Your task to perform on an android device: Open Chrome and go to the settings page Image 0: 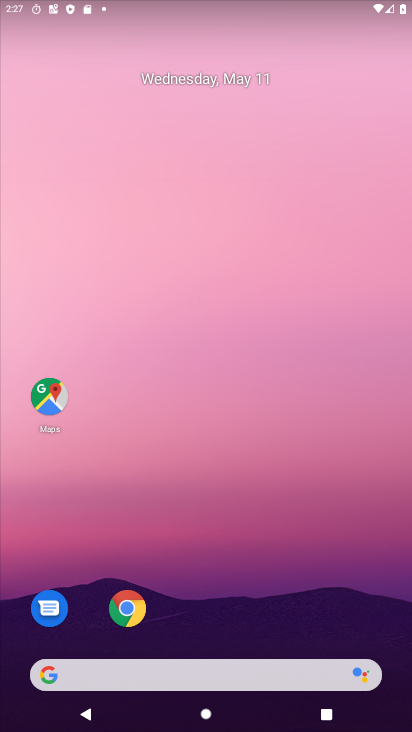
Step 0: click (124, 601)
Your task to perform on an android device: Open Chrome and go to the settings page Image 1: 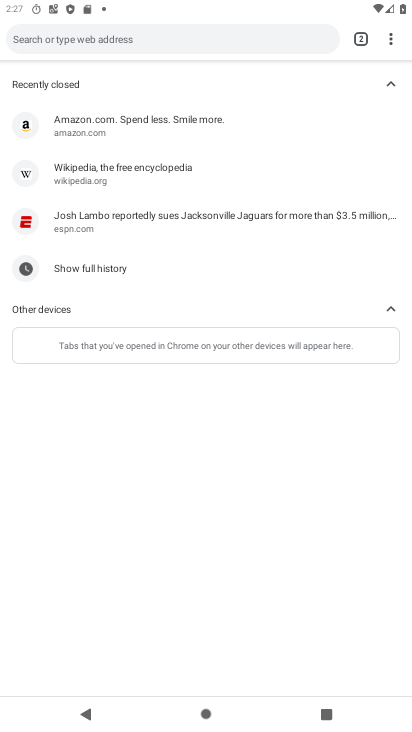
Step 1: click (396, 39)
Your task to perform on an android device: Open Chrome and go to the settings page Image 2: 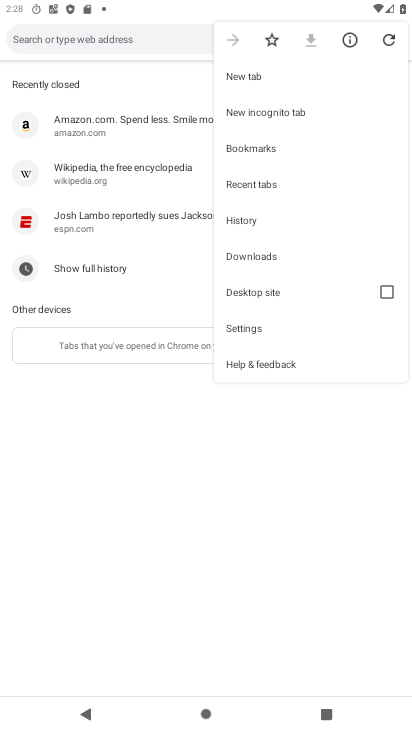
Step 2: click (269, 334)
Your task to perform on an android device: Open Chrome and go to the settings page Image 3: 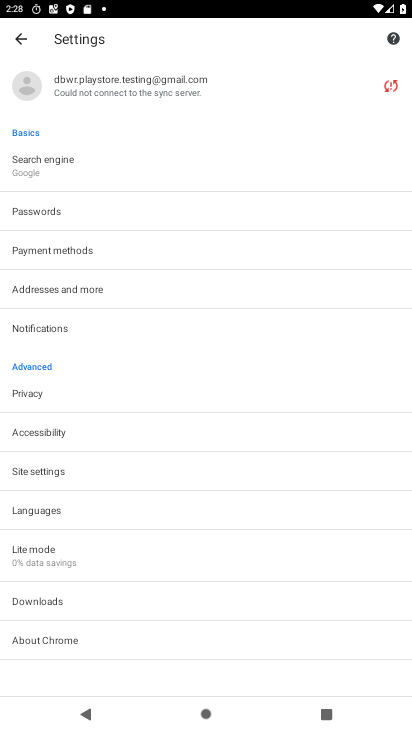
Step 3: task complete